Your task to perform on an android device: turn off javascript in the chrome app Image 0: 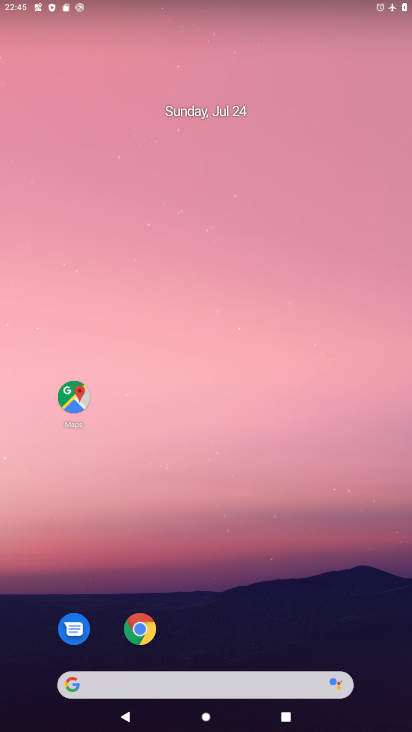
Step 0: drag from (168, 613) to (208, 107)
Your task to perform on an android device: turn off javascript in the chrome app Image 1: 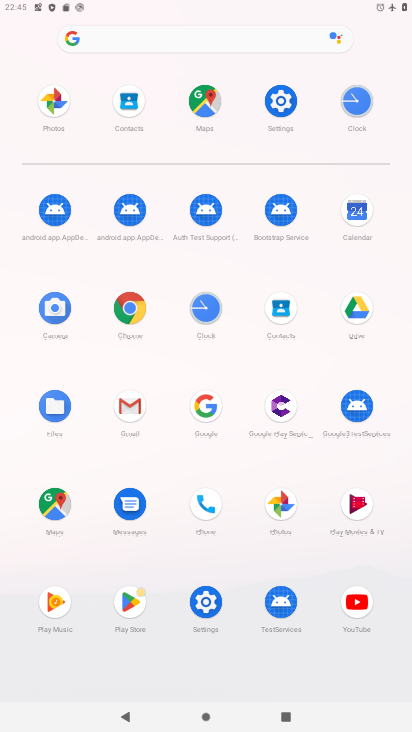
Step 1: click (129, 309)
Your task to perform on an android device: turn off javascript in the chrome app Image 2: 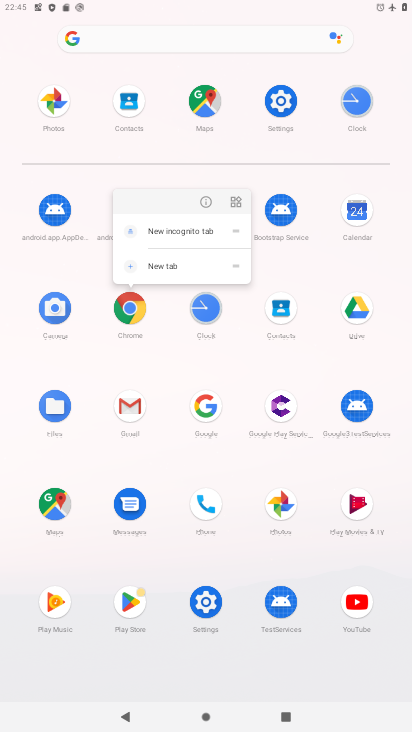
Step 2: click (208, 202)
Your task to perform on an android device: turn off javascript in the chrome app Image 3: 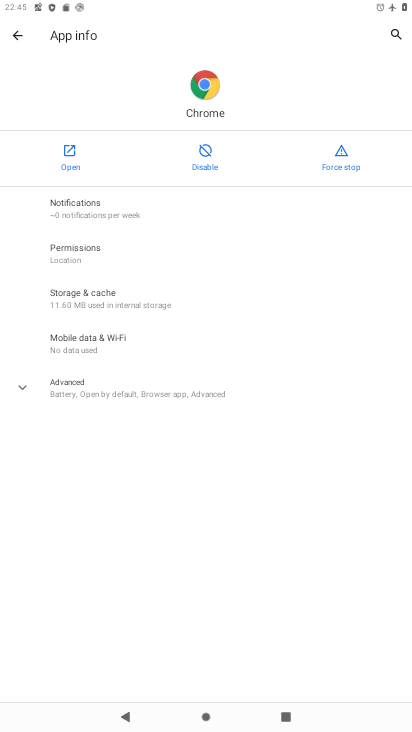
Step 3: click (56, 144)
Your task to perform on an android device: turn off javascript in the chrome app Image 4: 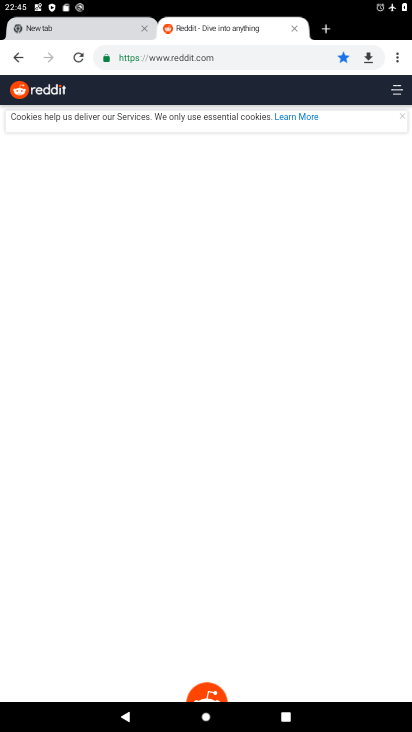
Step 4: click (361, 124)
Your task to perform on an android device: turn off javascript in the chrome app Image 5: 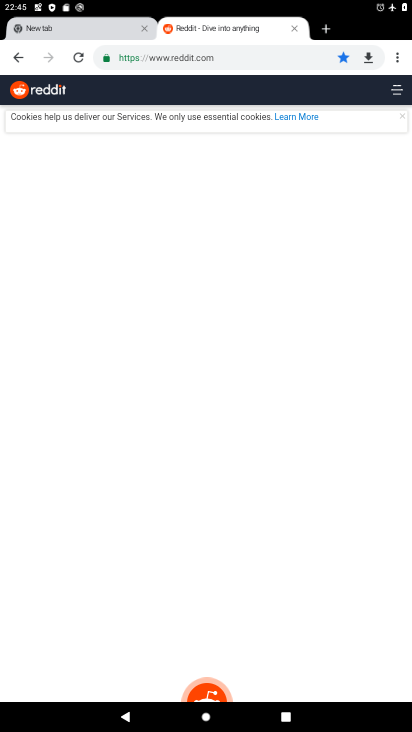
Step 5: drag from (402, 55) to (298, 352)
Your task to perform on an android device: turn off javascript in the chrome app Image 6: 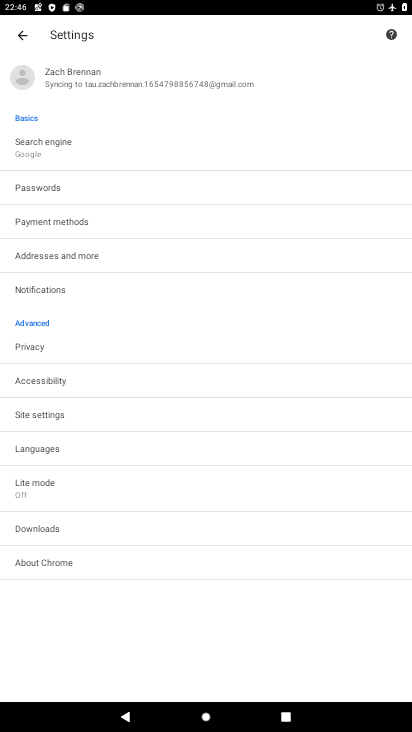
Step 6: click (55, 416)
Your task to perform on an android device: turn off javascript in the chrome app Image 7: 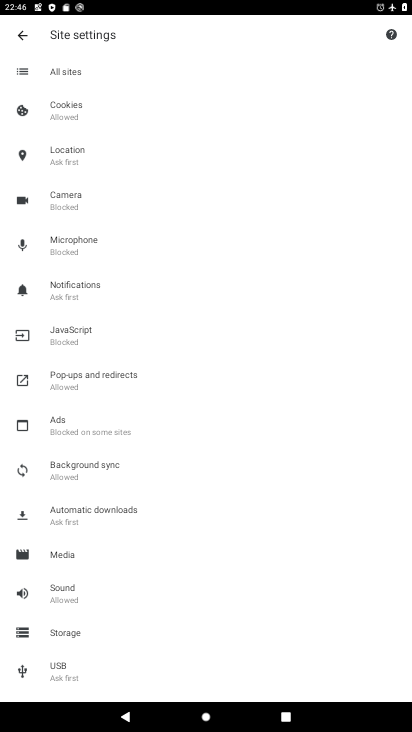
Step 7: click (98, 336)
Your task to perform on an android device: turn off javascript in the chrome app Image 8: 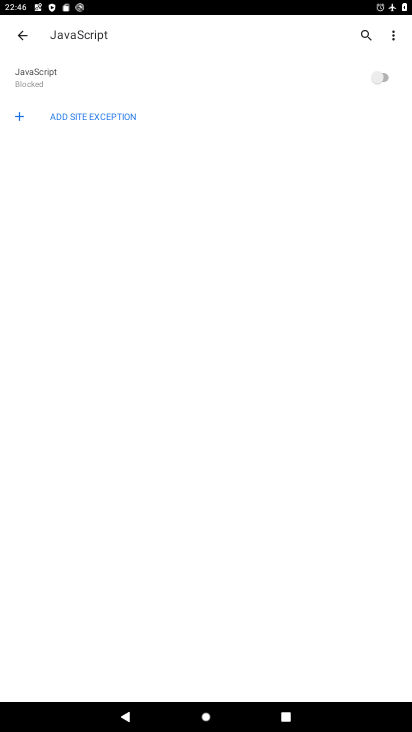
Step 8: drag from (187, 445) to (187, 171)
Your task to perform on an android device: turn off javascript in the chrome app Image 9: 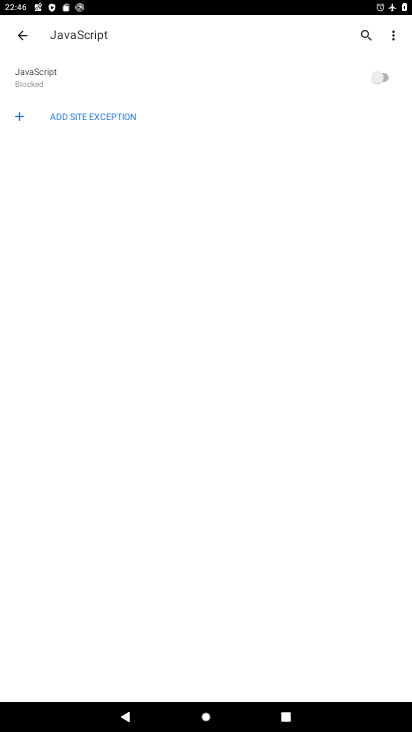
Step 9: click (309, 79)
Your task to perform on an android device: turn off javascript in the chrome app Image 10: 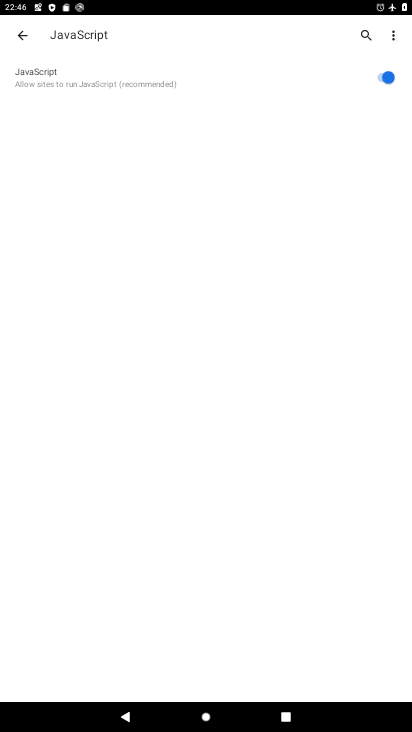
Step 10: click (309, 79)
Your task to perform on an android device: turn off javascript in the chrome app Image 11: 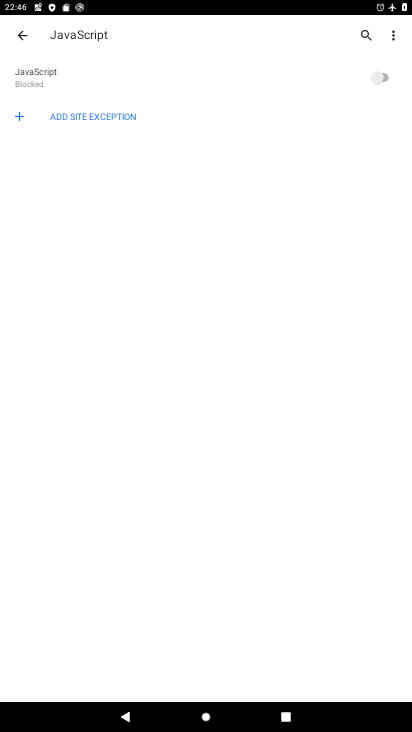
Step 11: task complete